Your task to perform on an android device: make emails show in primary in the gmail app Image 0: 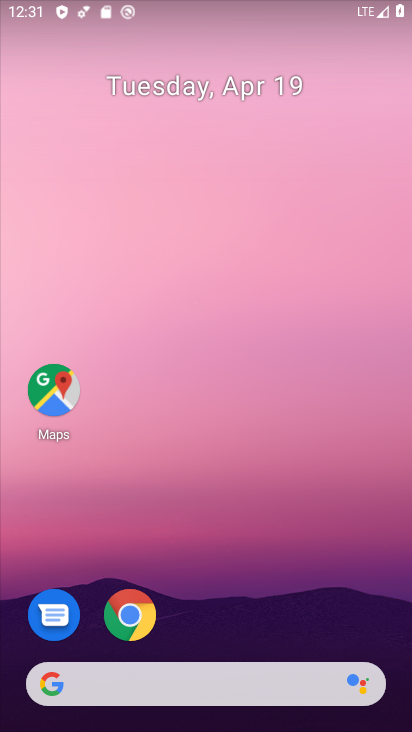
Step 0: drag from (264, 569) to (299, 107)
Your task to perform on an android device: make emails show in primary in the gmail app Image 1: 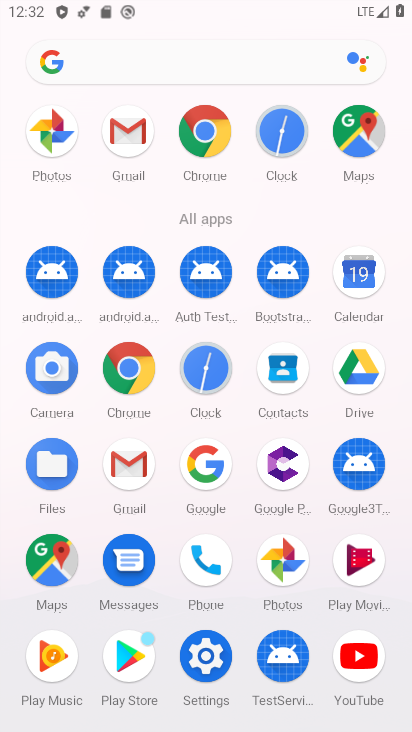
Step 1: click (133, 466)
Your task to perform on an android device: make emails show in primary in the gmail app Image 2: 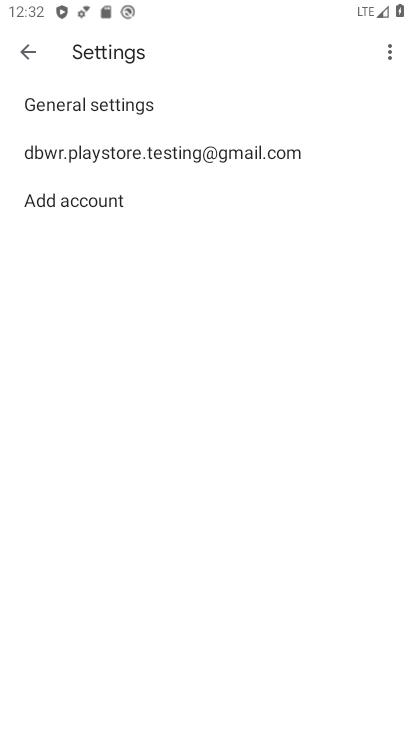
Step 2: click (103, 148)
Your task to perform on an android device: make emails show in primary in the gmail app Image 3: 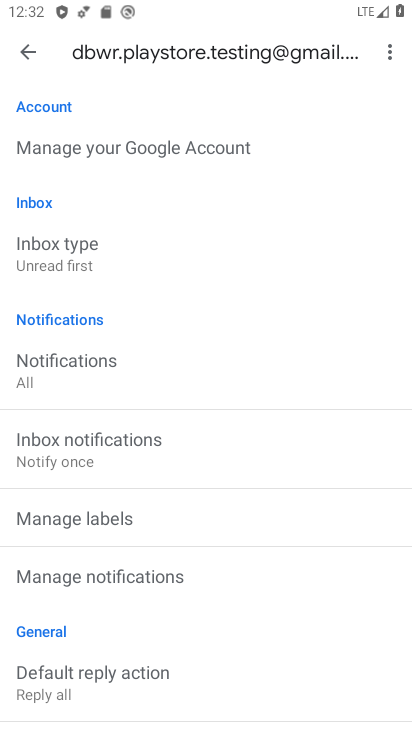
Step 3: drag from (247, 645) to (251, 256)
Your task to perform on an android device: make emails show in primary in the gmail app Image 4: 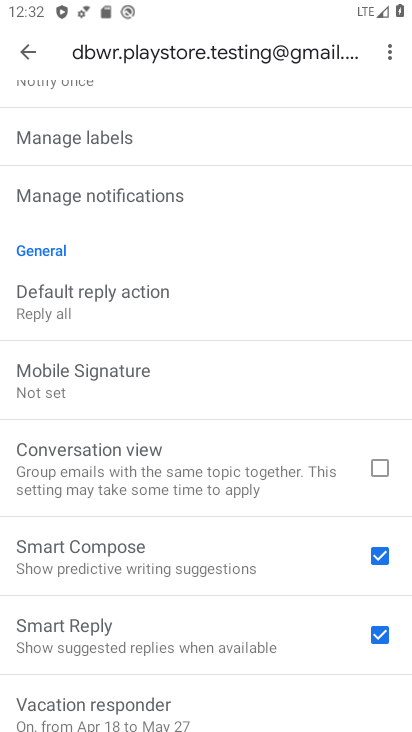
Step 4: drag from (222, 277) to (207, 672)
Your task to perform on an android device: make emails show in primary in the gmail app Image 5: 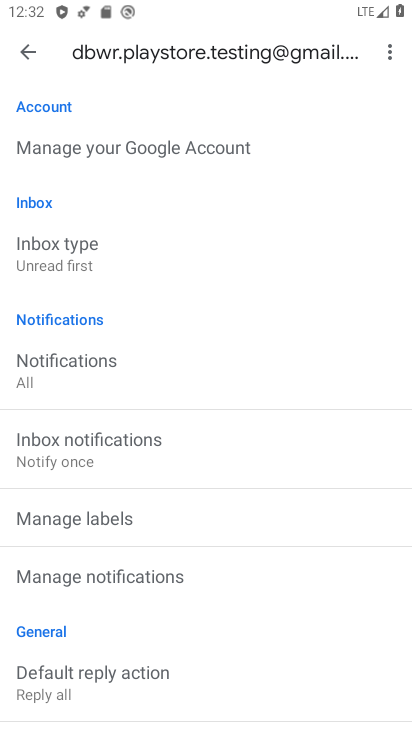
Step 5: click (104, 451)
Your task to perform on an android device: make emails show in primary in the gmail app Image 6: 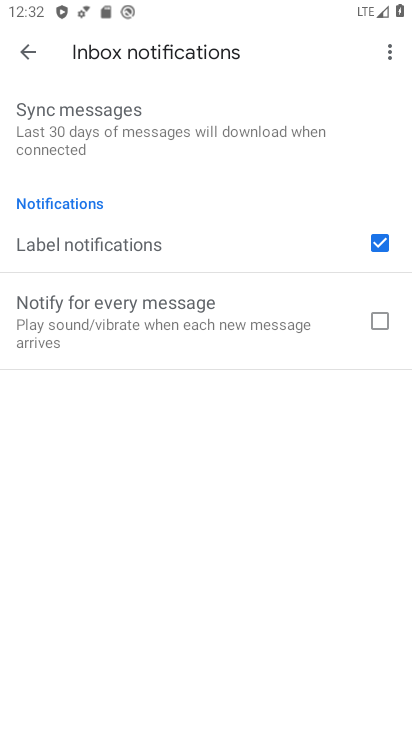
Step 6: click (31, 49)
Your task to perform on an android device: make emails show in primary in the gmail app Image 7: 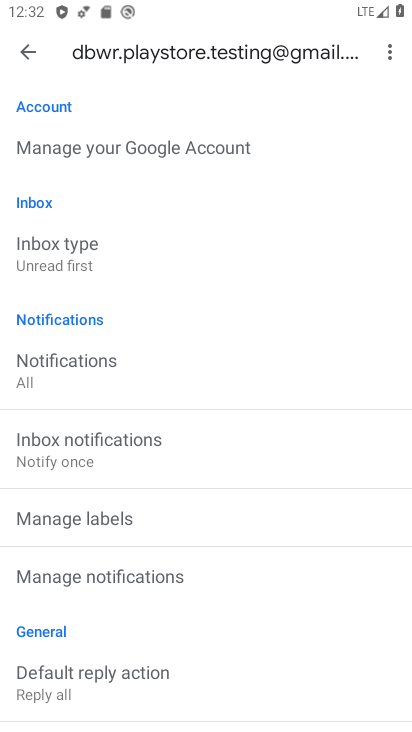
Step 7: task complete